Your task to perform on an android device: Check the news Image 0: 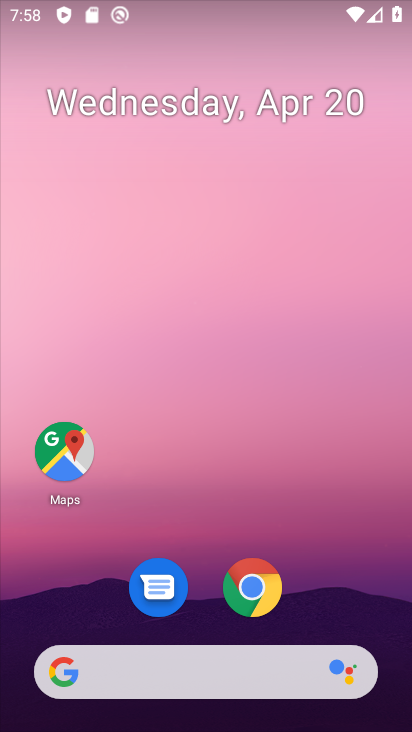
Step 0: drag from (16, 260) to (408, 350)
Your task to perform on an android device: Check the news Image 1: 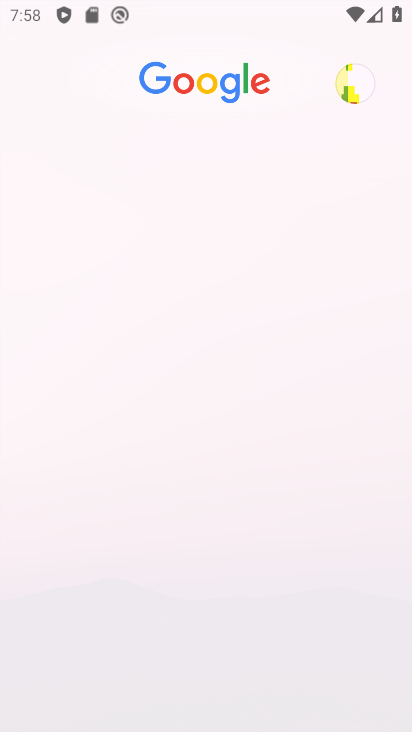
Step 1: task complete